Your task to perform on an android device: turn on improve location accuracy Image 0: 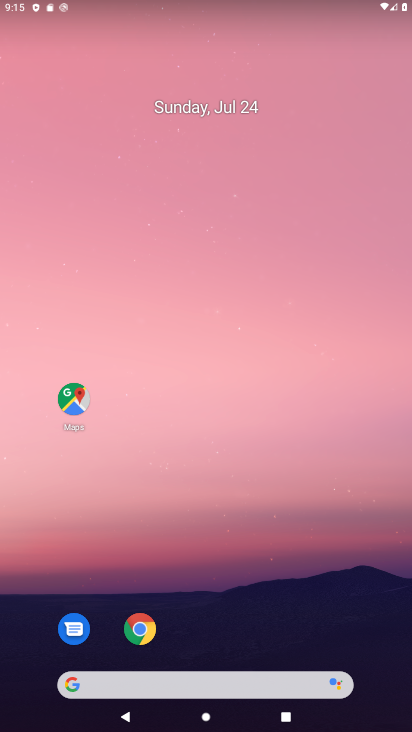
Step 0: drag from (263, 624) to (286, 304)
Your task to perform on an android device: turn on improve location accuracy Image 1: 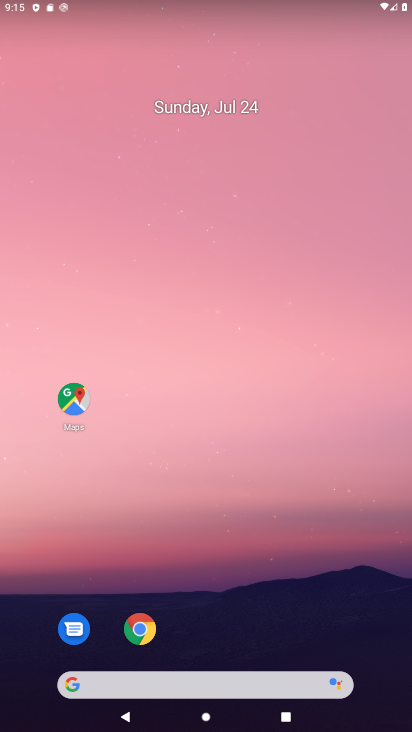
Step 1: drag from (296, 657) to (329, 5)
Your task to perform on an android device: turn on improve location accuracy Image 2: 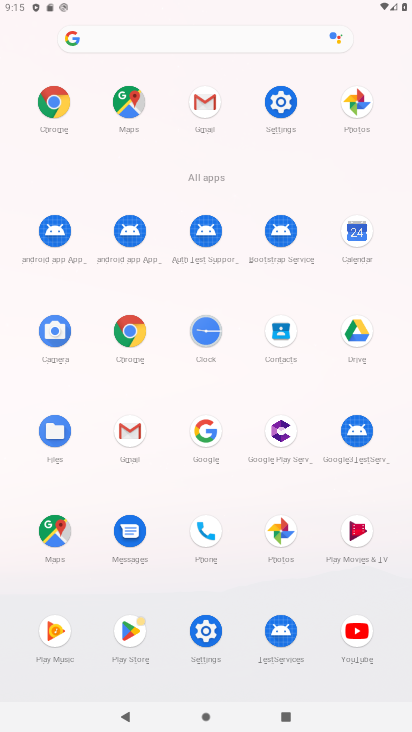
Step 2: click (278, 87)
Your task to perform on an android device: turn on improve location accuracy Image 3: 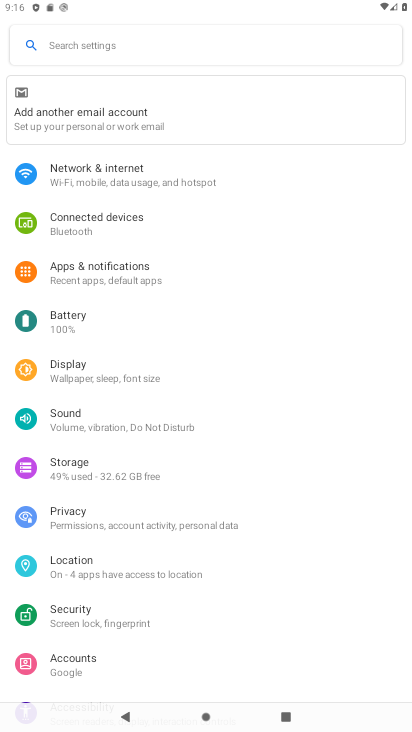
Step 3: click (132, 565)
Your task to perform on an android device: turn on improve location accuracy Image 4: 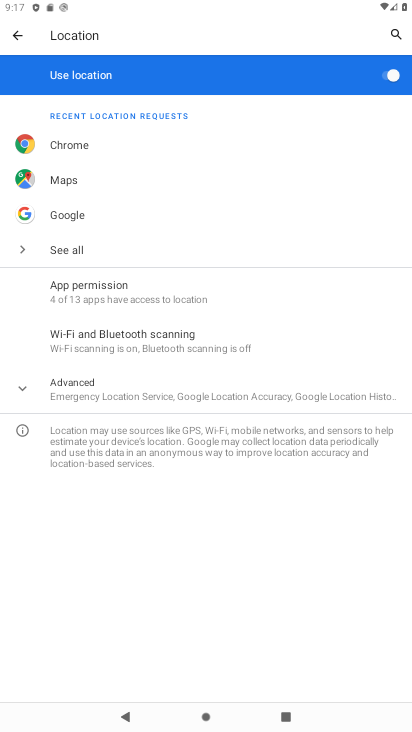
Step 4: task complete